Your task to perform on an android device: open app "Google Calendar" Image 0: 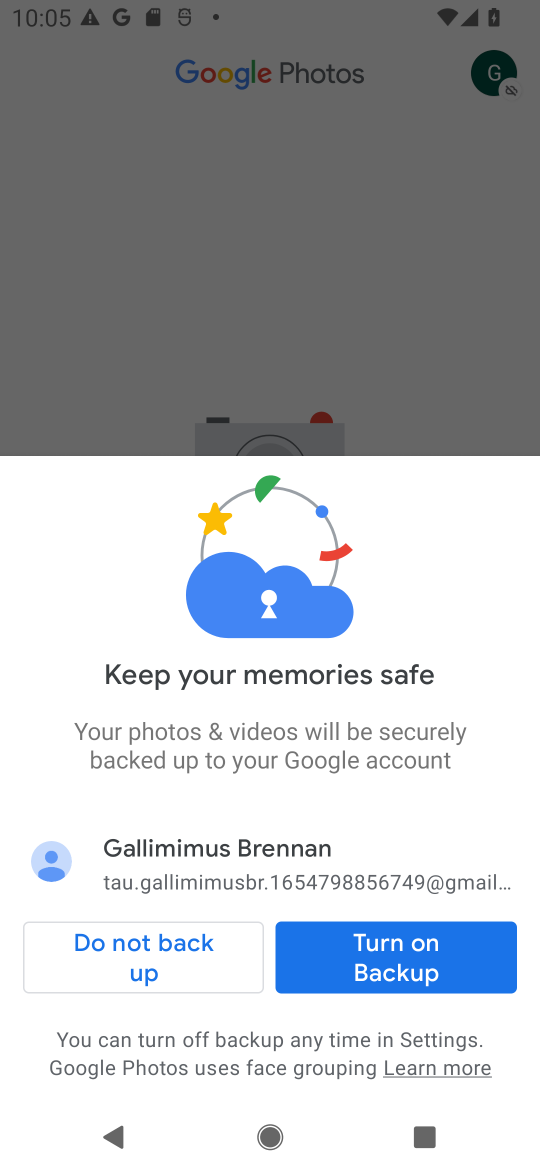
Step 0: press home button
Your task to perform on an android device: open app "Google Calendar" Image 1: 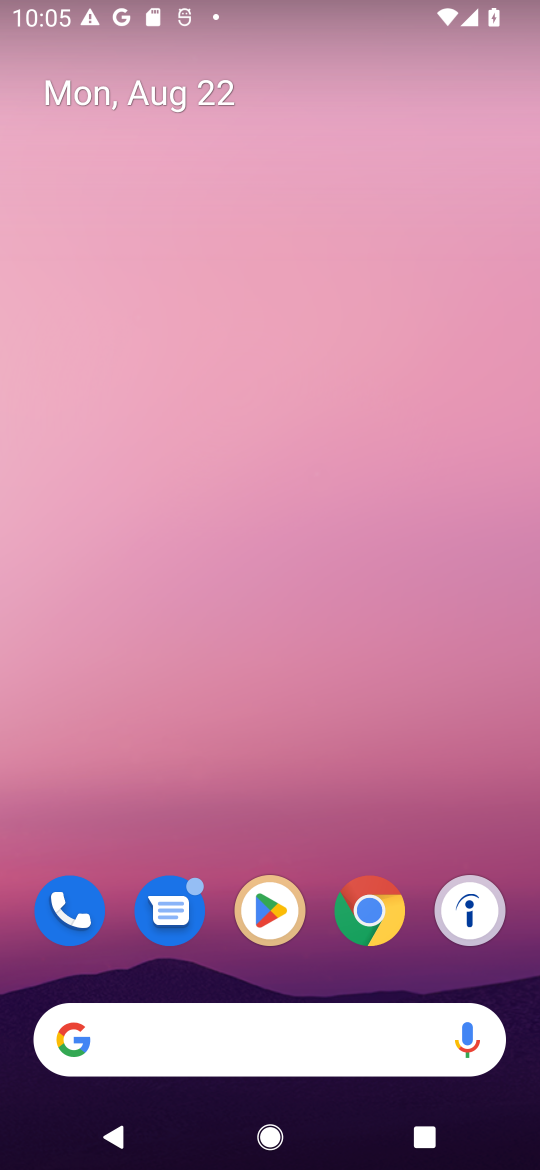
Step 1: click (268, 913)
Your task to perform on an android device: open app "Google Calendar" Image 2: 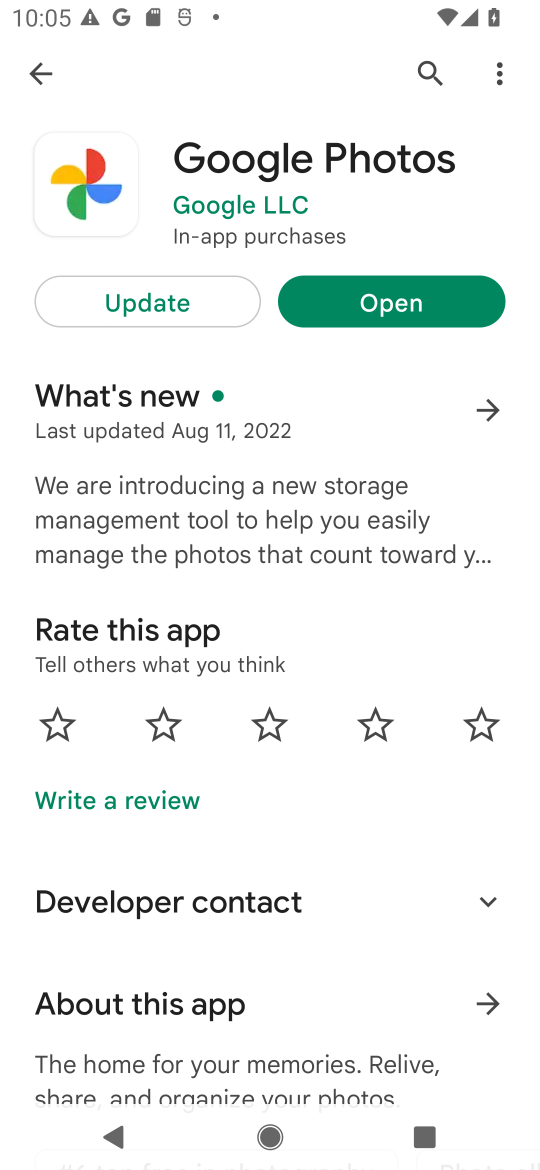
Step 2: click (429, 81)
Your task to perform on an android device: open app "Google Calendar" Image 3: 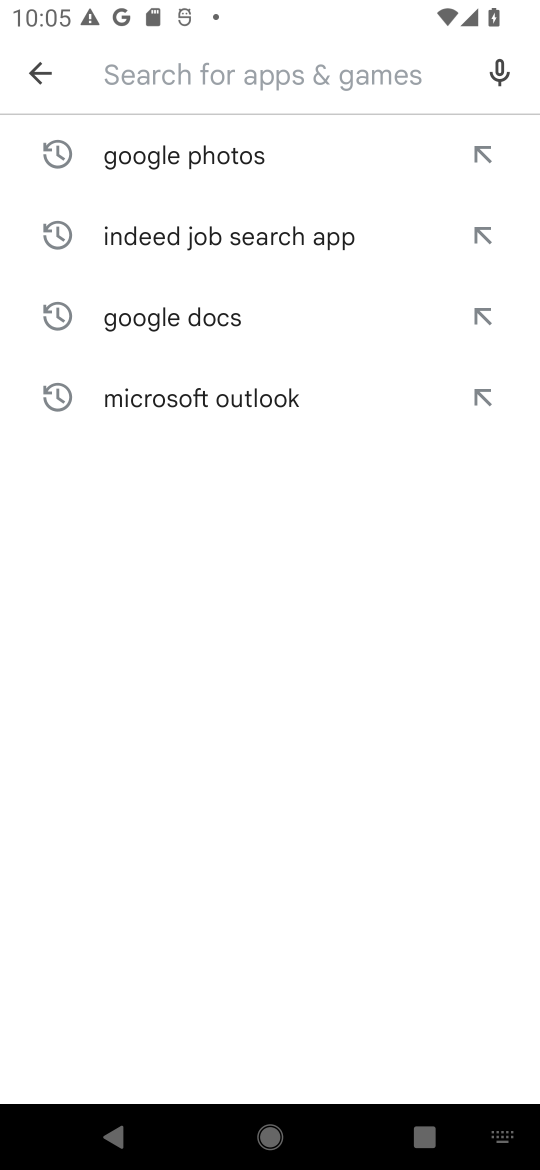
Step 3: type "Google Calendar"
Your task to perform on an android device: open app "Google Calendar" Image 4: 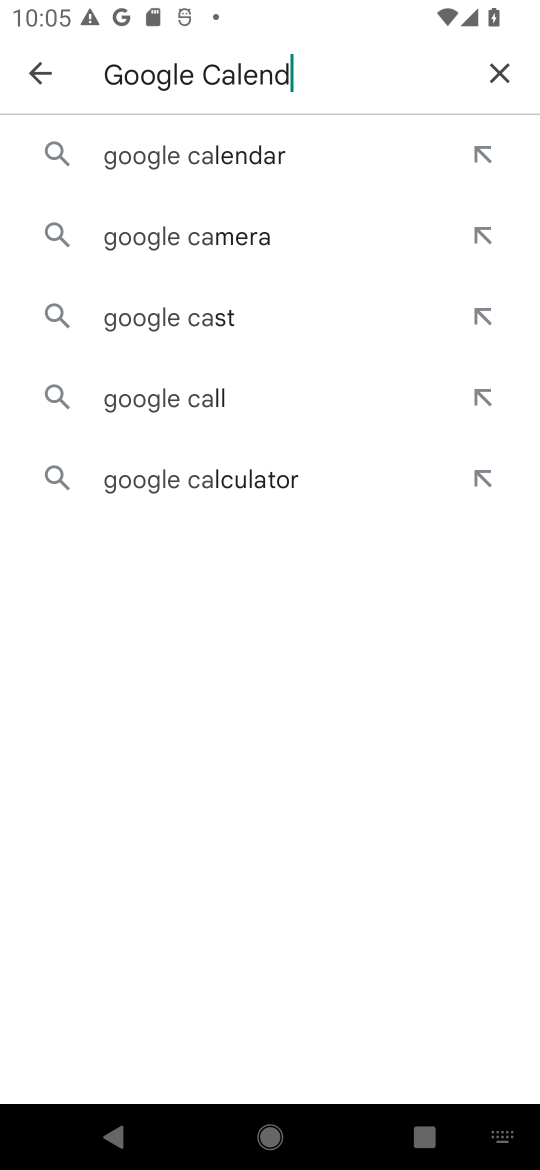
Step 4: type ""
Your task to perform on an android device: open app "Google Calendar" Image 5: 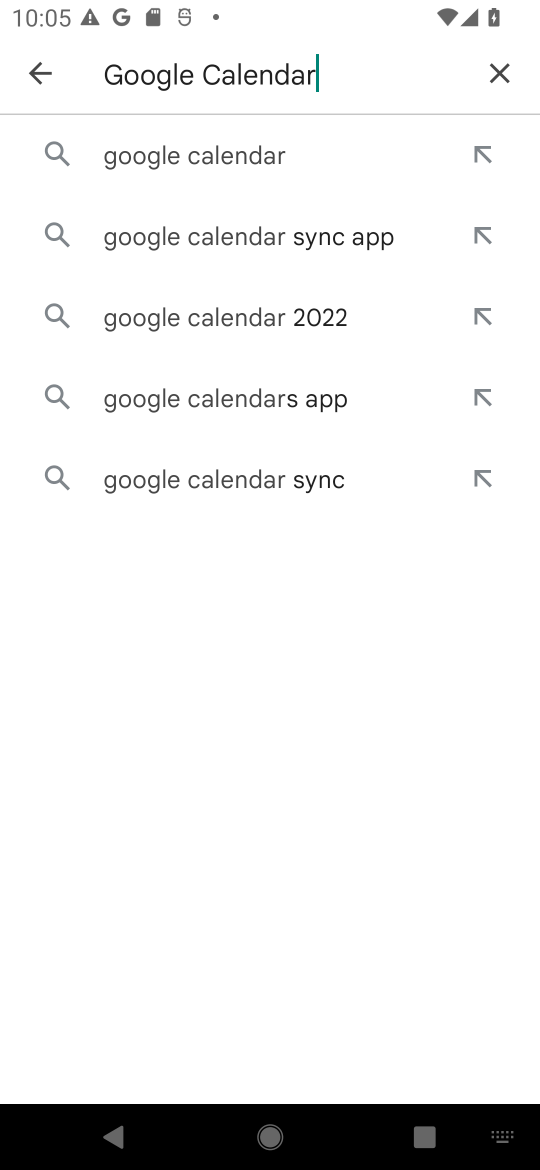
Step 5: click (263, 144)
Your task to perform on an android device: open app "Google Calendar" Image 6: 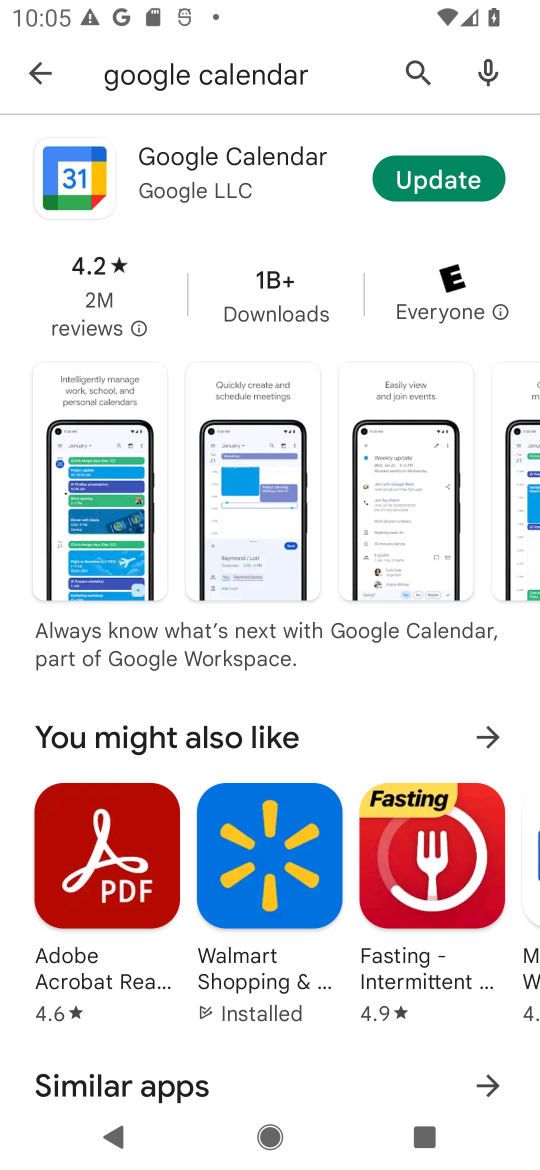
Step 6: click (262, 191)
Your task to perform on an android device: open app "Google Calendar" Image 7: 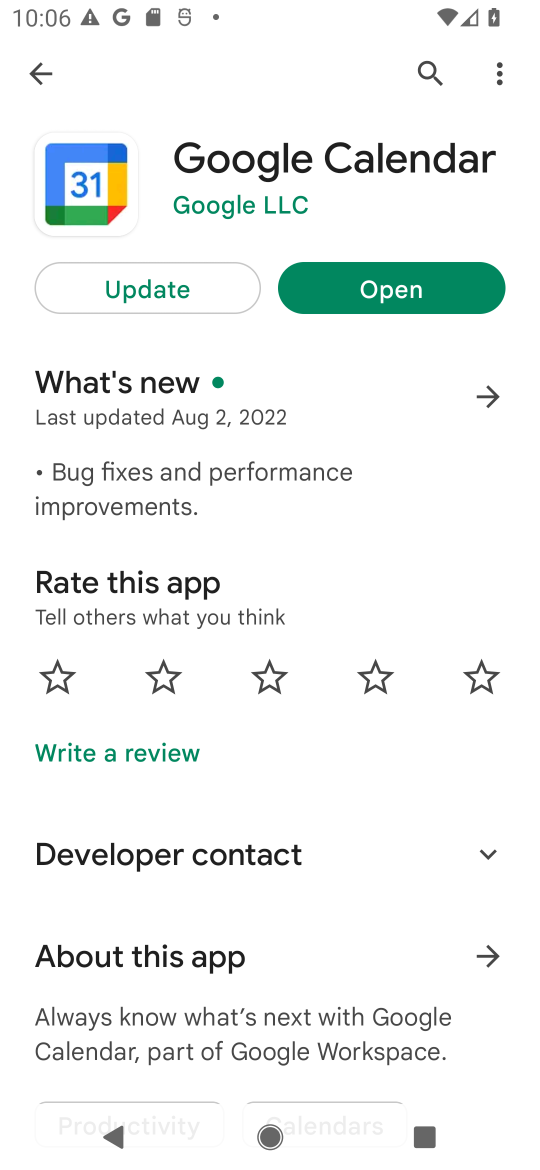
Step 7: click (384, 301)
Your task to perform on an android device: open app "Google Calendar" Image 8: 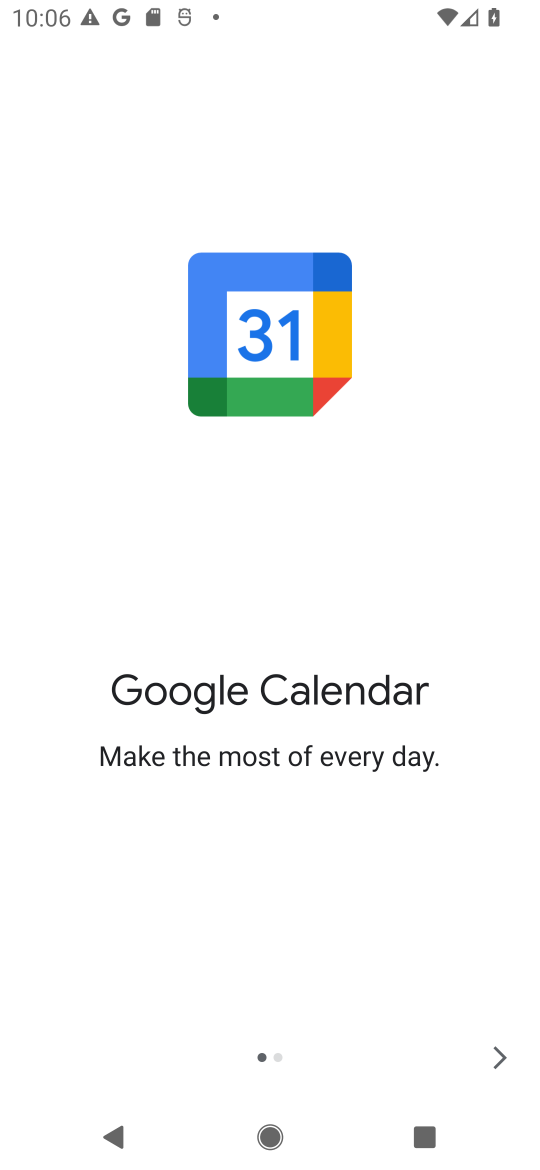
Step 8: task complete